Your task to perform on an android device: Search for pizza restaurants on Maps Image 0: 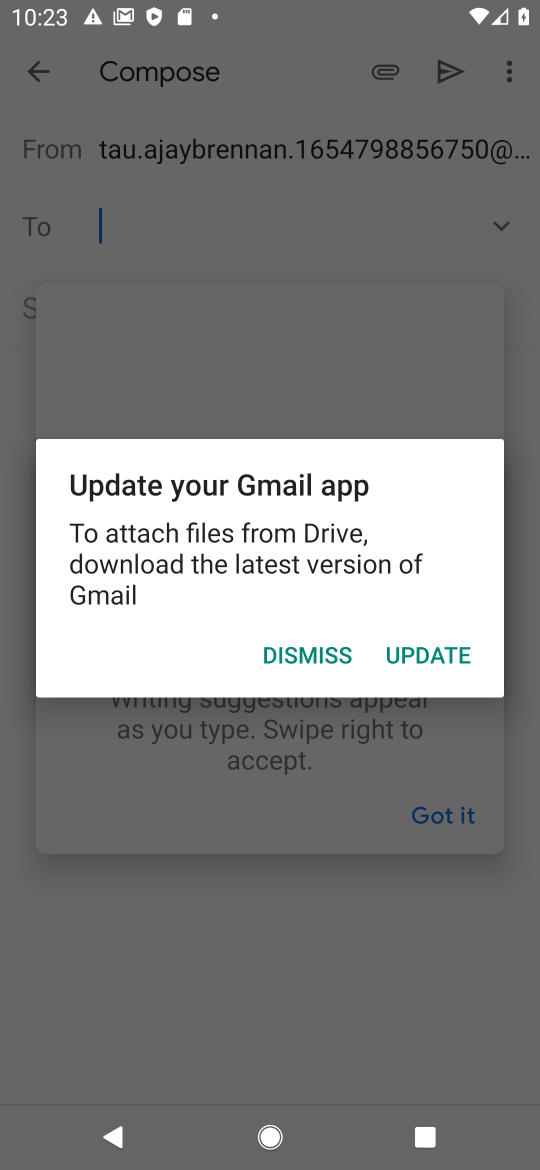
Step 0: press home button
Your task to perform on an android device: Search for pizza restaurants on Maps Image 1: 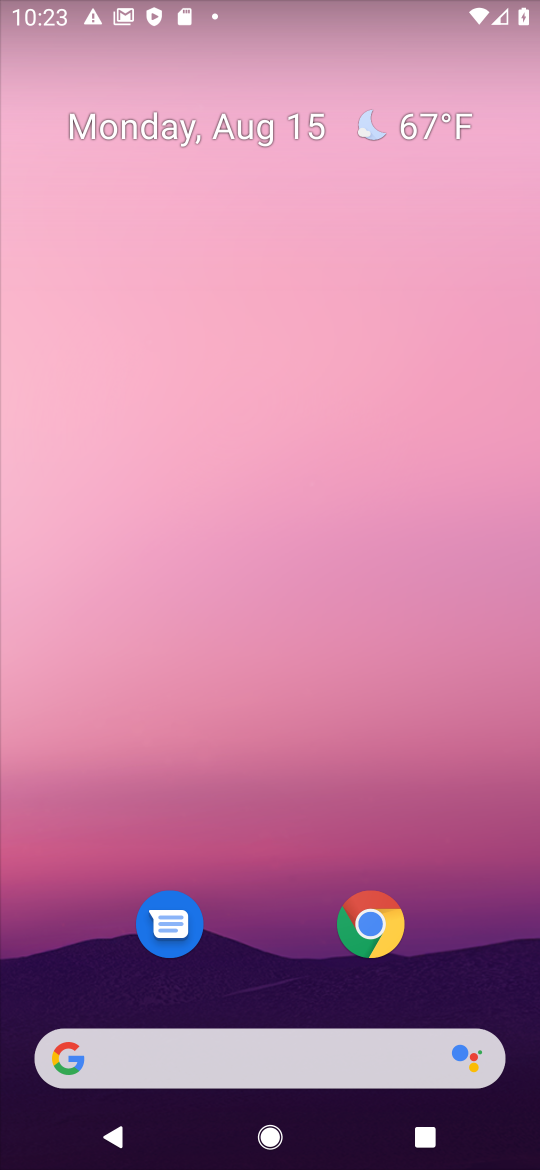
Step 1: drag from (500, 983) to (430, 300)
Your task to perform on an android device: Search for pizza restaurants on Maps Image 2: 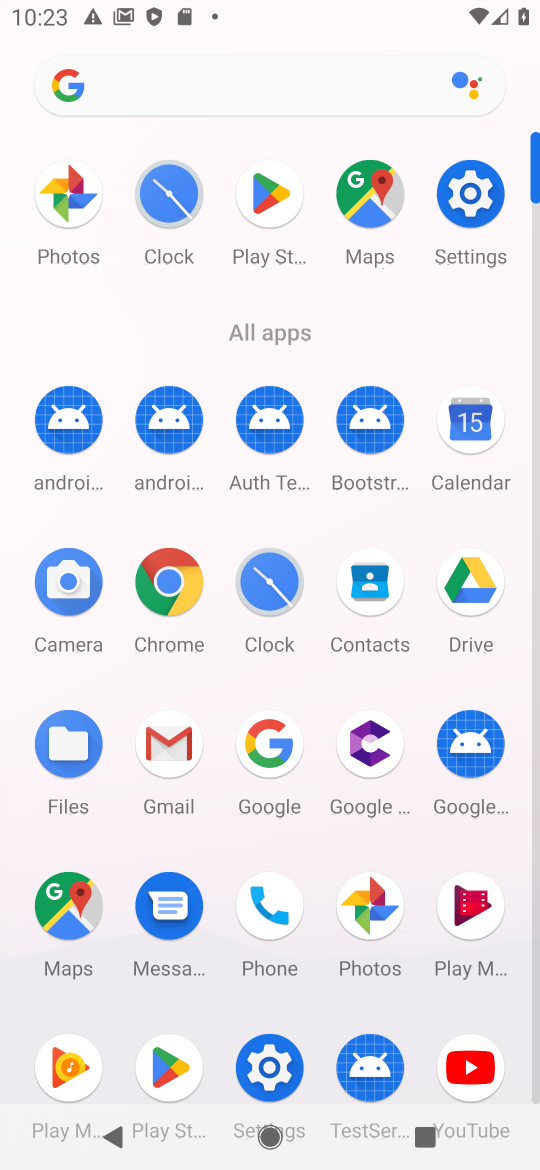
Step 2: click (69, 909)
Your task to perform on an android device: Search for pizza restaurants on Maps Image 3: 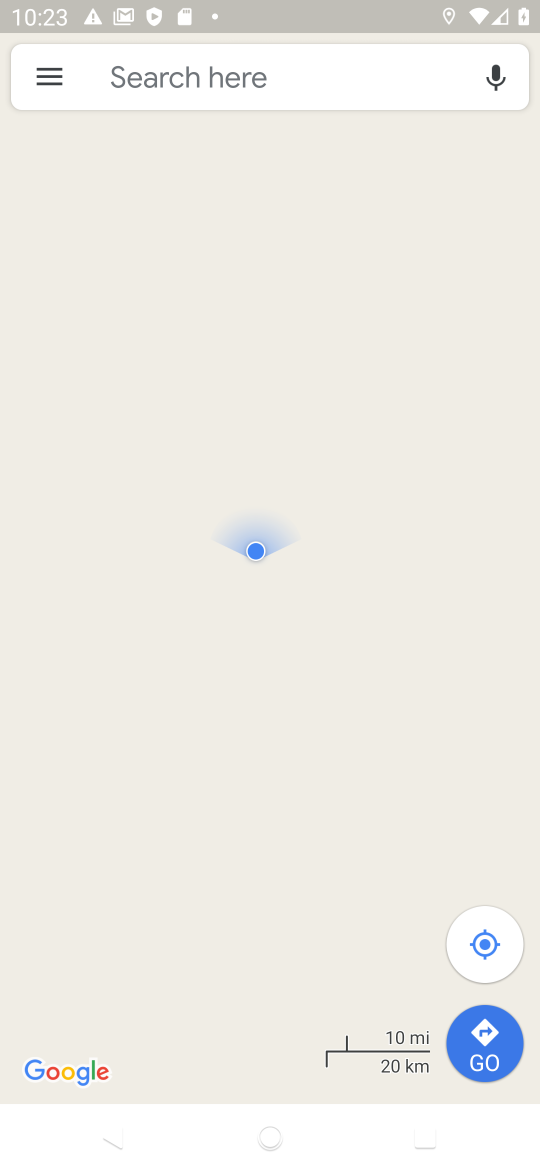
Step 3: click (213, 75)
Your task to perform on an android device: Search for pizza restaurants on Maps Image 4: 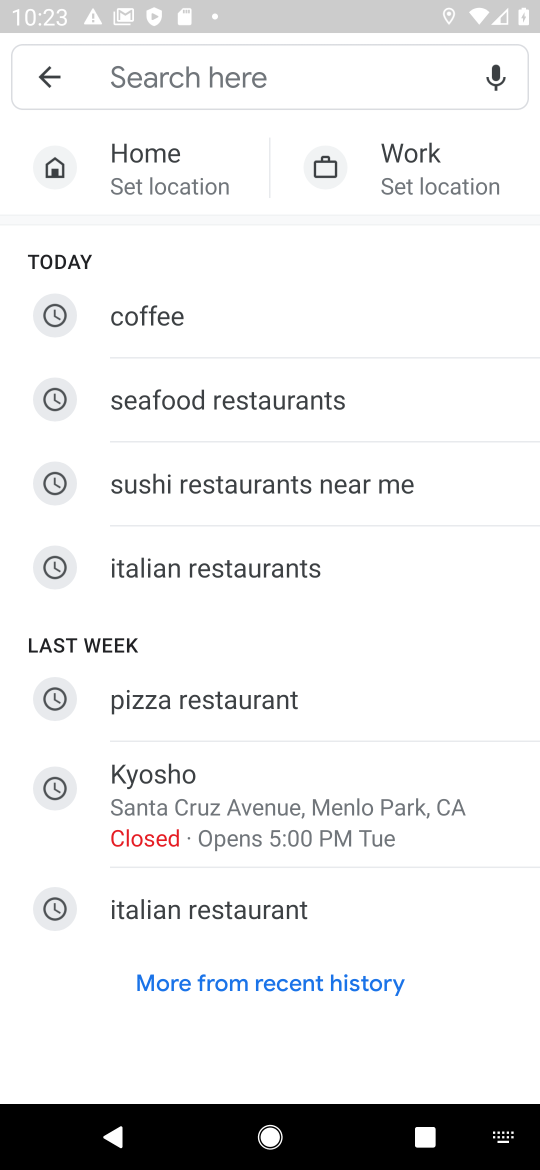
Step 4: type "pizza restaurants"
Your task to perform on an android device: Search for pizza restaurants on Maps Image 5: 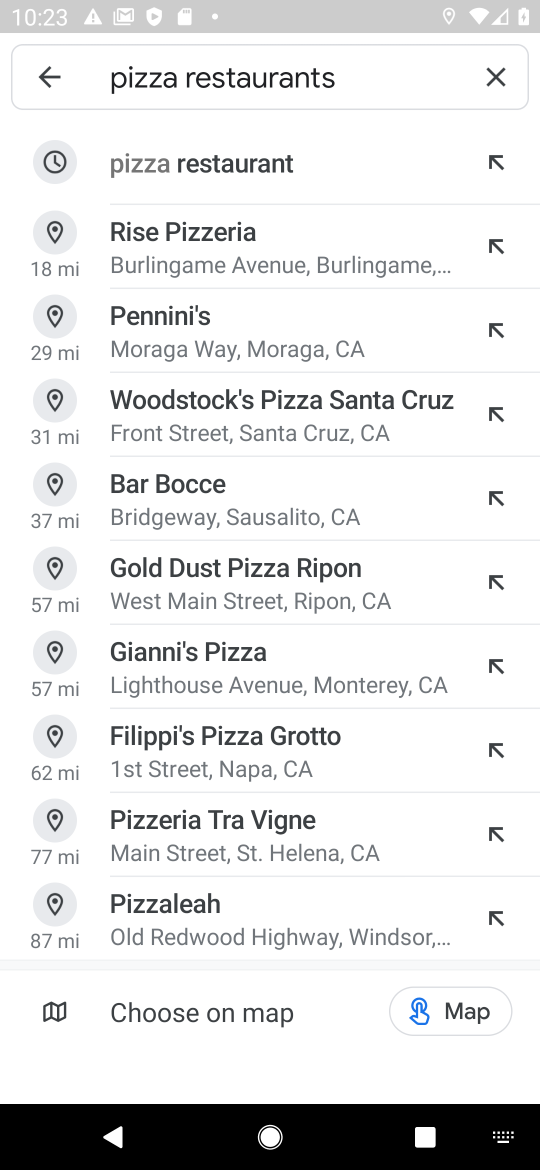
Step 5: click (223, 160)
Your task to perform on an android device: Search for pizza restaurants on Maps Image 6: 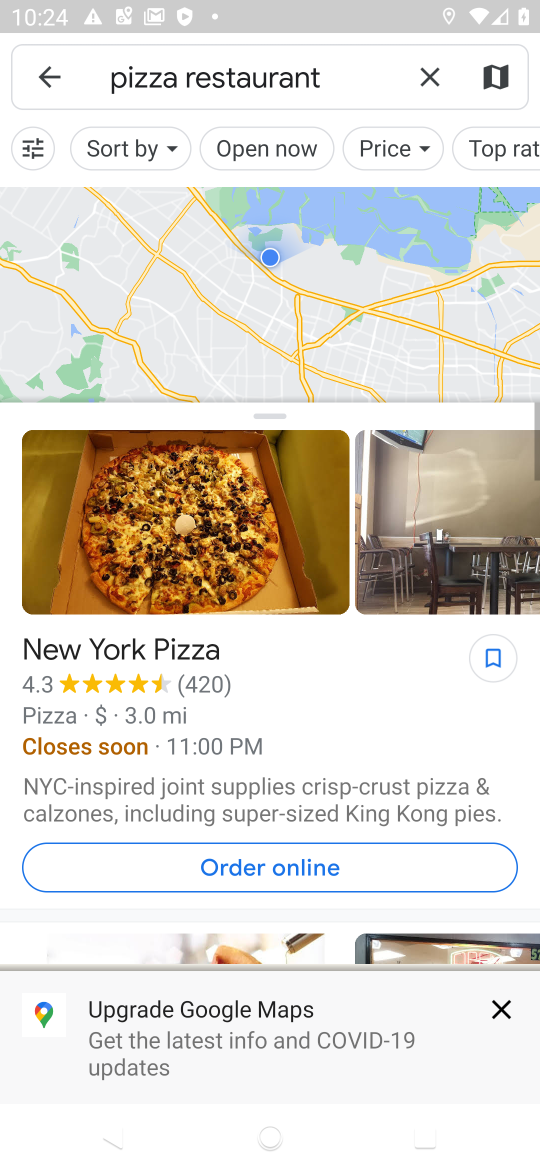
Step 6: task complete